Your task to perform on an android device: Do I have any events today? Image 0: 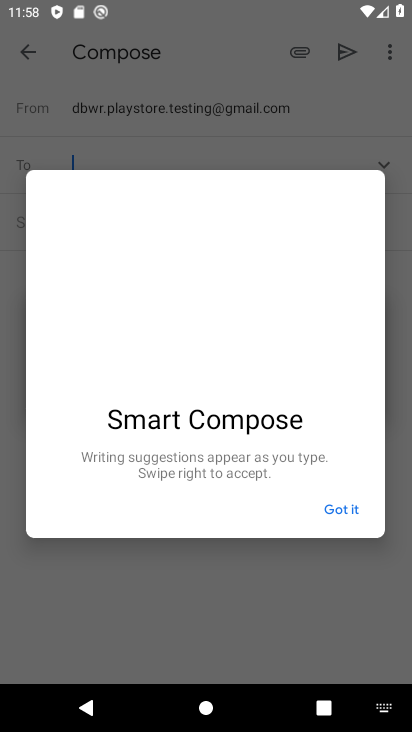
Step 0: press home button
Your task to perform on an android device: Do I have any events today? Image 1: 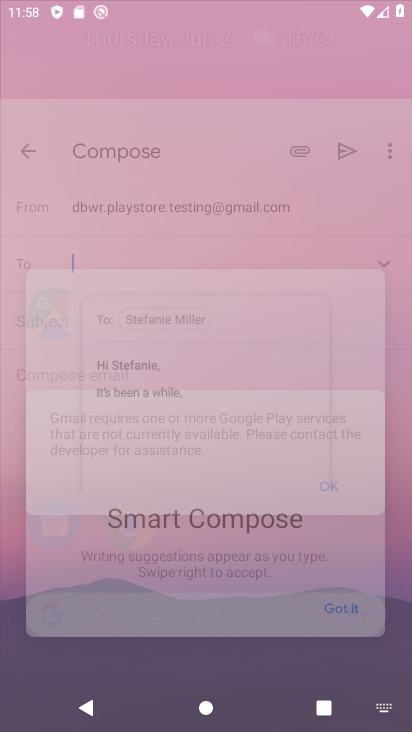
Step 1: press home button
Your task to perform on an android device: Do I have any events today? Image 2: 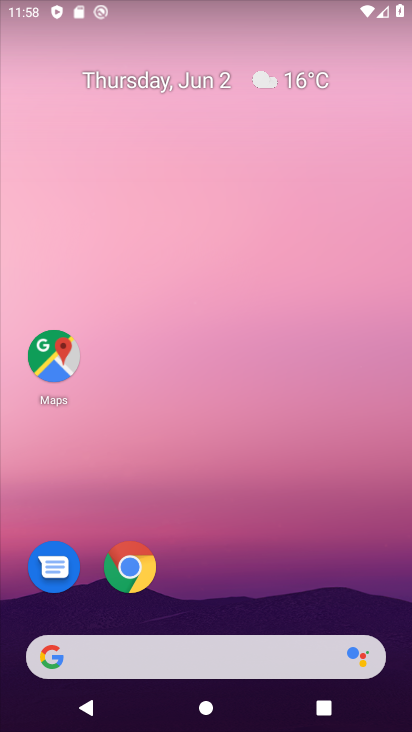
Step 2: drag from (271, 589) to (224, 186)
Your task to perform on an android device: Do I have any events today? Image 3: 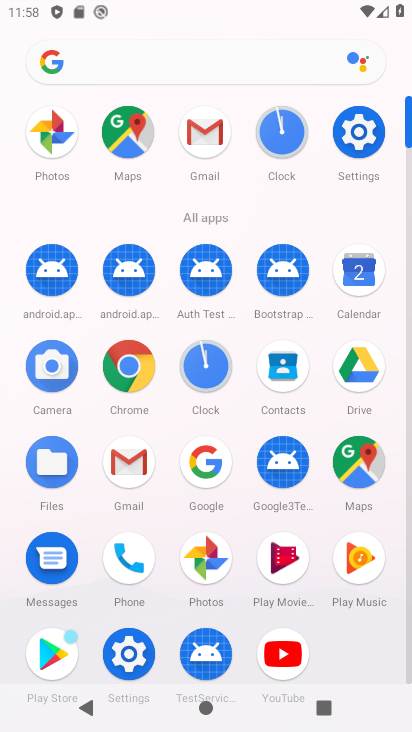
Step 3: click (358, 274)
Your task to perform on an android device: Do I have any events today? Image 4: 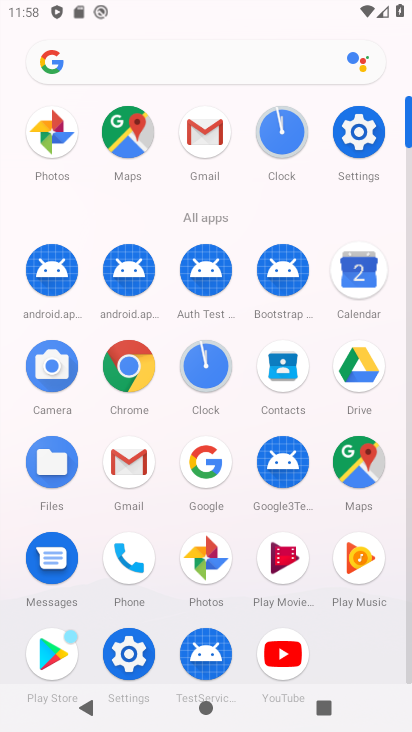
Step 4: click (358, 273)
Your task to perform on an android device: Do I have any events today? Image 5: 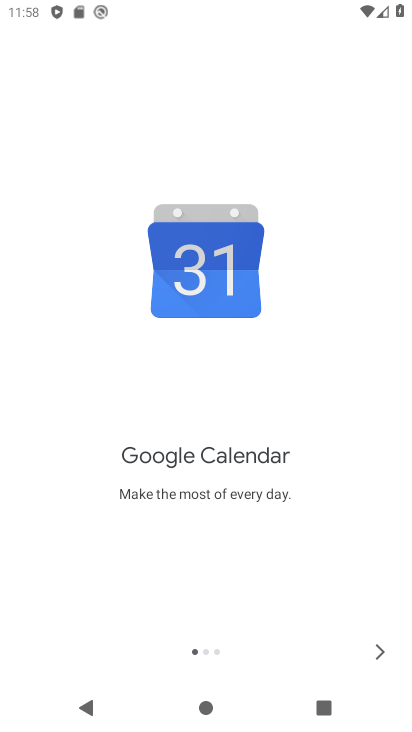
Step 5: click (375, 643)
Your task to perform on an android device: Do I have any events today? Image 6: 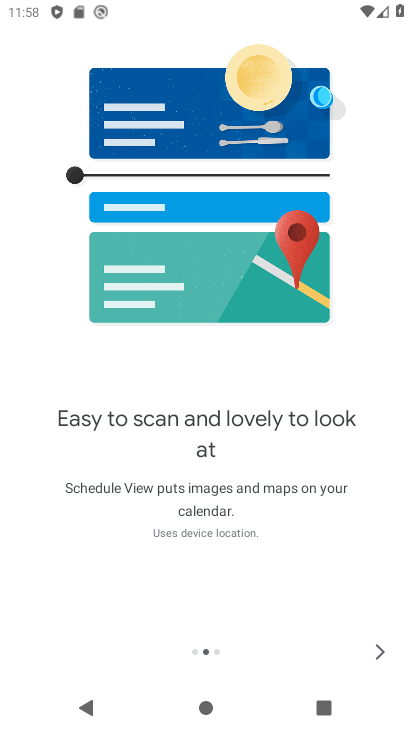
Step 6: click (380, 659)
Your task to perform on an android device: Do I have any events today? Image 7: 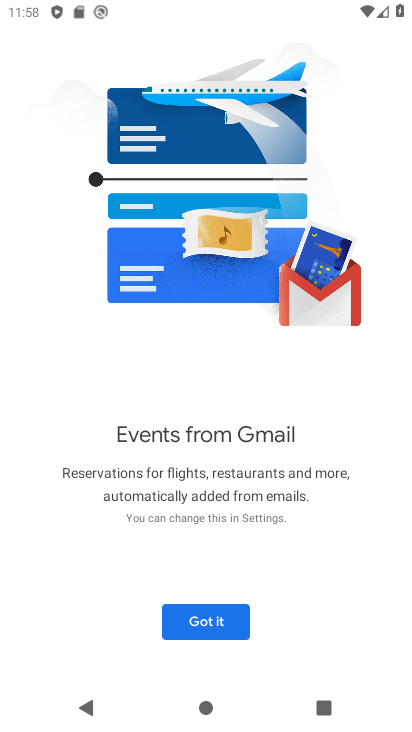
Step 7: click (242, 616)
Your task to perform on an android device: Do I have any events today? Image 8: 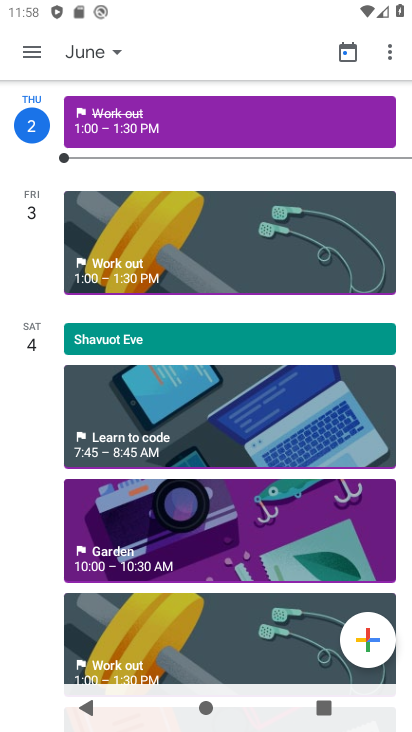
Step 8: click (31, 55)
Your task to perform on an android device: Do I have any events today? Image 9: 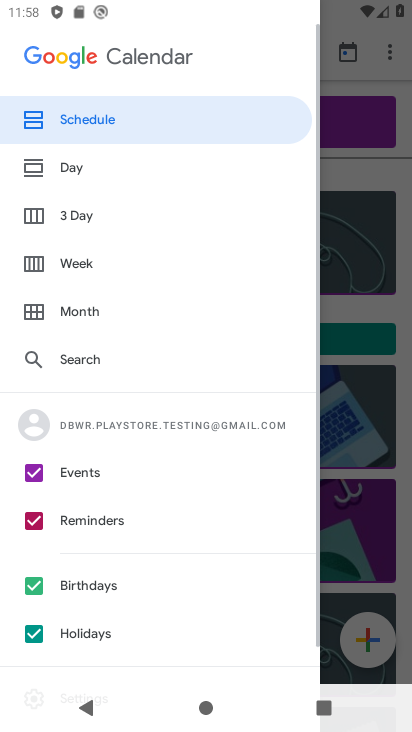
Step 9: click (47, 172)
Your task to perform on an android device: Do I have any events today? Image 10: 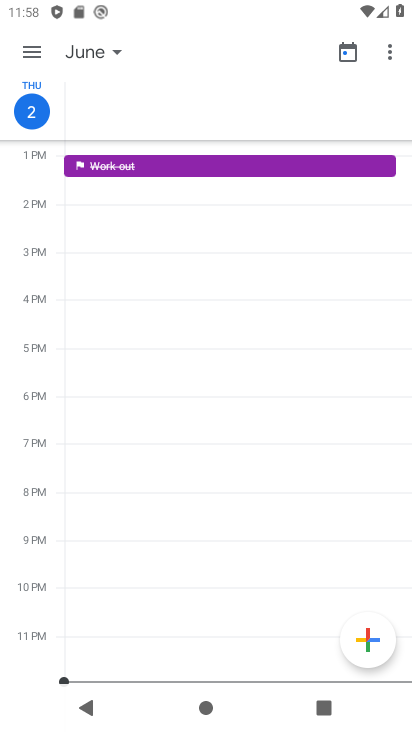
Step 10: task complete